Your task to perform on an android device: Search for sushi restaurants on Maps Image 0: 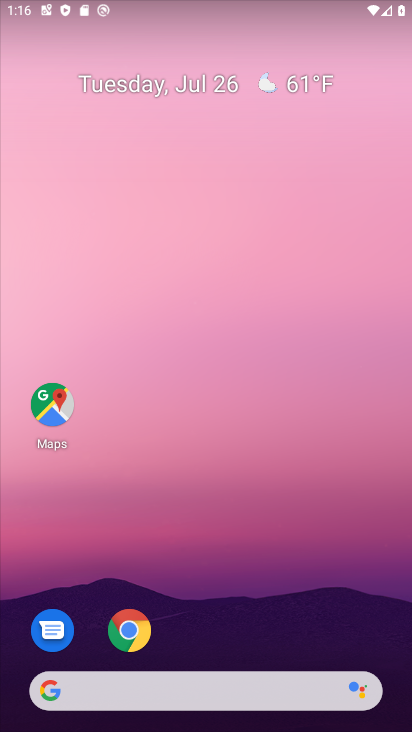
Step 0: click (49, 421)
Your task to perform on an android device: Search for sushi restaurants on Maps Image 1: 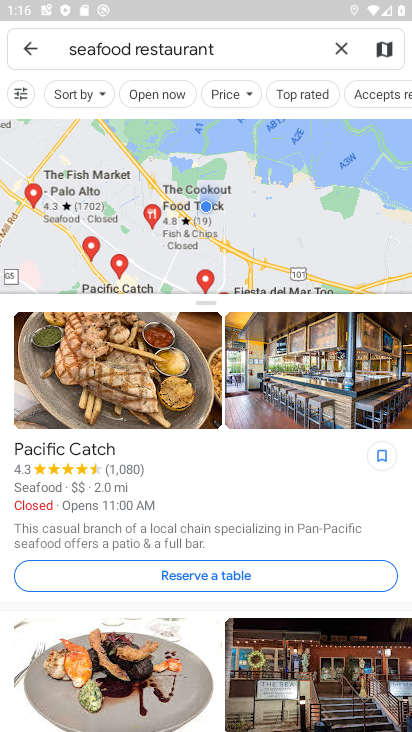
Step 1: click (341, 45)
Your task to perform on an android device: Search for sushi restaurants on Maps Image 2: 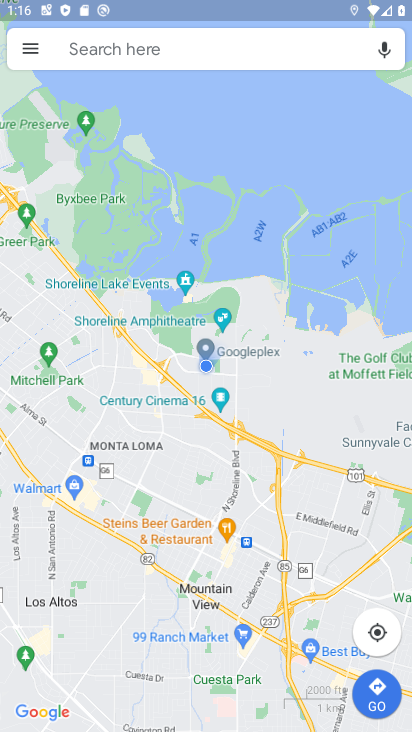
Step 2: click (204, 49)
Your task to perform on an android device: Search for sushi restaurants on Maps Image 3: 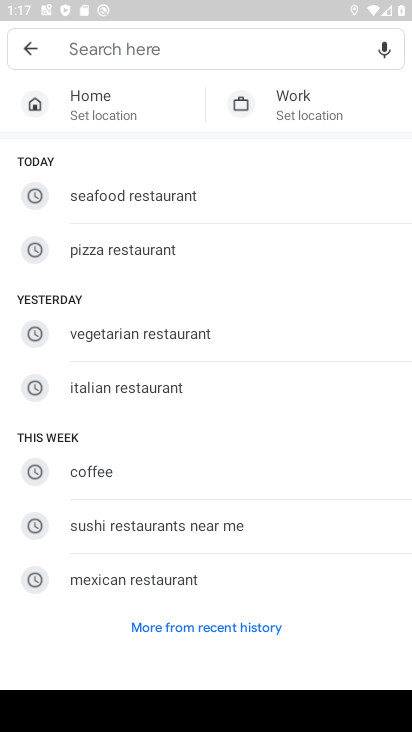
Step 3: type "sushi restaurants"
Your task to perform on an android device: Search for sushi restaurants on Maps Image 4: 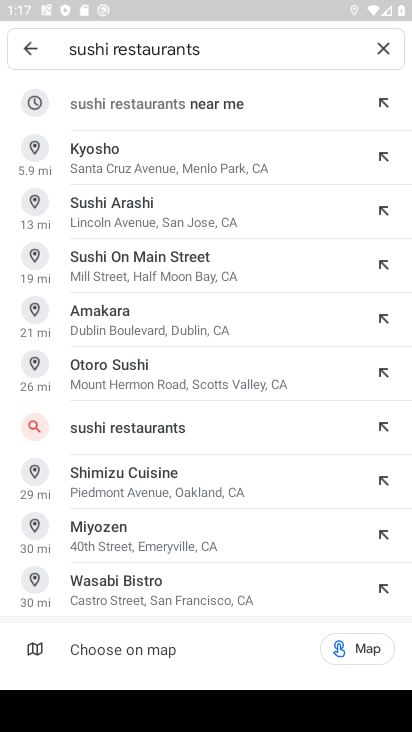
Step 4: click (144, 420)
Your task to perform on an android device: Search for sushi restaurants on Maps Image 5: 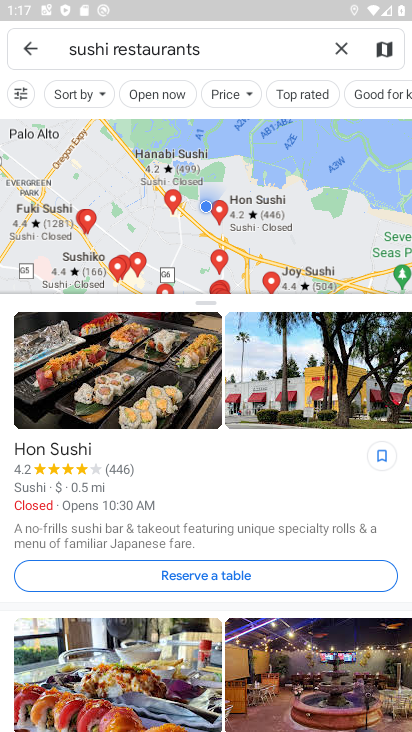
Step 5: task complete